Your task to perform on an android device: turn on priority inbox in the gmail app Image 0: 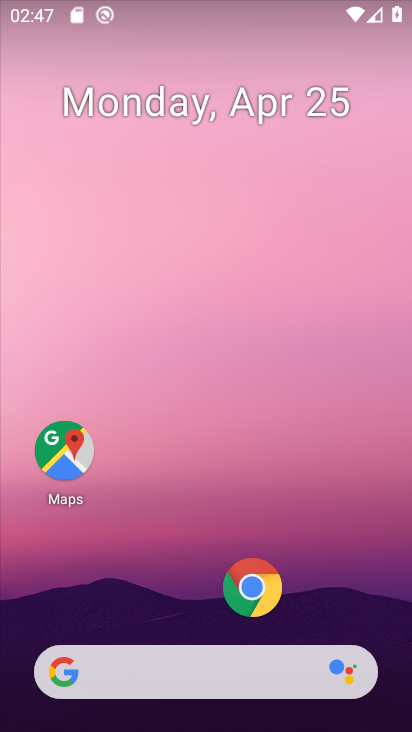
Step 0: drag from (203, 607) to (178, 42)
Your task to perform on an android device: turn on priority inbox in the gmail app Image 1: 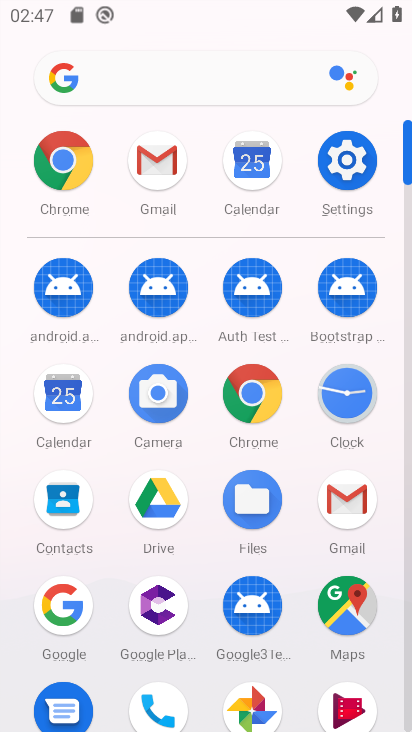
Step 1: click (347, 489)
Your task to perform on an android device: turn on priority inbox in the gmail app Image 2: 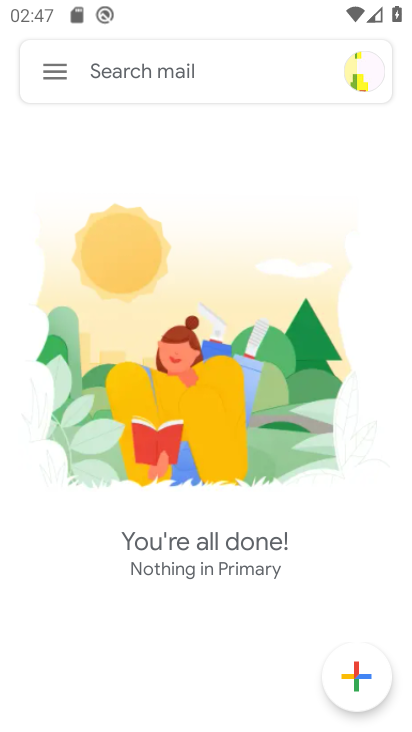
Step 2: click (48, 64)
Your task to perform on an android device: turn on priority inbox in the gmail app Image 3: 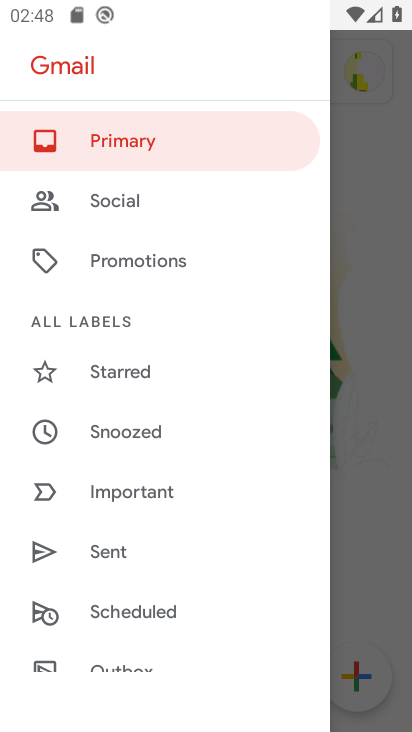
Step 3: drag from (138, 641) to (122, 51)
Your task to perform on an android device: turn on priority inbox in the gmail app Image 4: 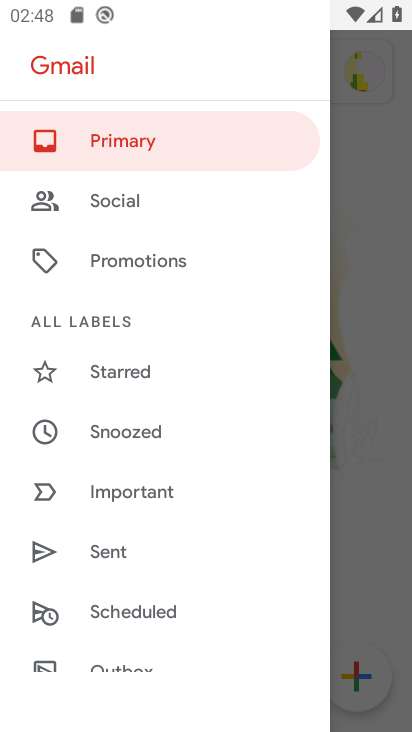
Step 4: drag from (126, 628) to (137, 91)
Your task to perform on an android device: turn on priority inbox in the gmail app Image 5: 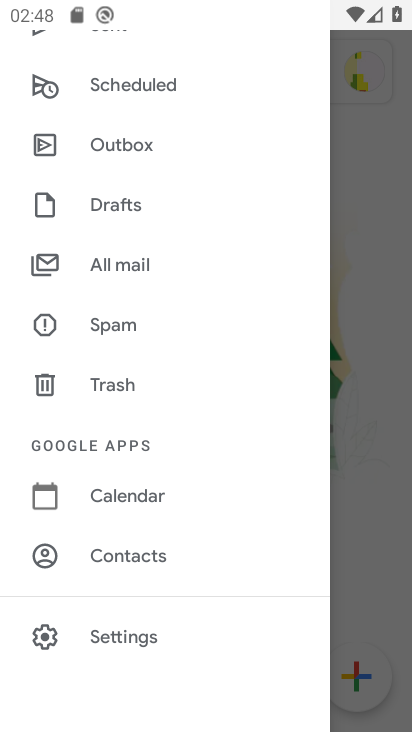
Step 5: click (169, 622)
Your task to perform on an android device: turn on priority inbox in the gmail app Image 6: 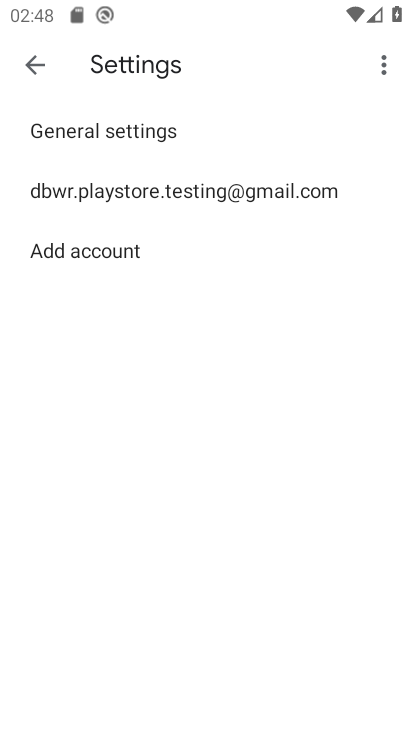
Step 6: click (276, 184)
Your task to perform on an android device: turn on priority inbox in the gmail app Image 7: 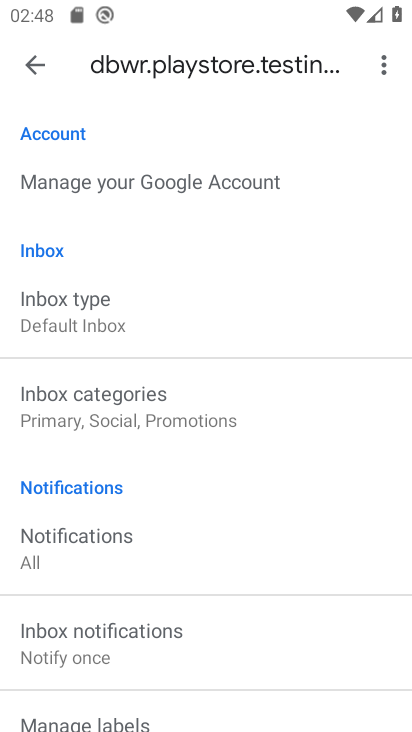
Step 7: click (131, 311)
Your task to perform on an android device: turn on priority inbox in the gmail app Image 8: 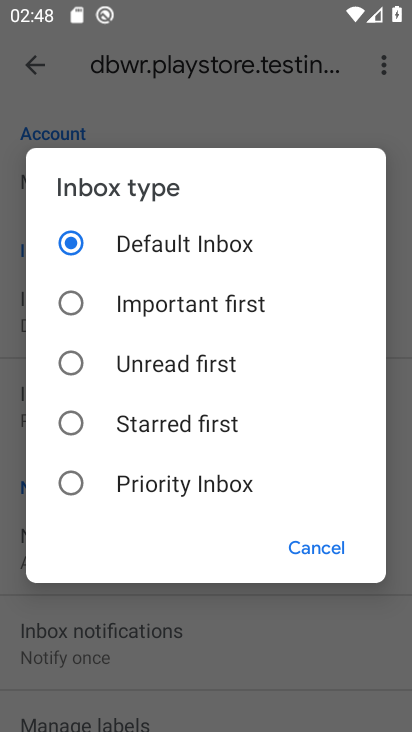
Step 8: click (69, 474)
Your task to perform on an android device: turn on priority inbox in the gmail app Image 9: 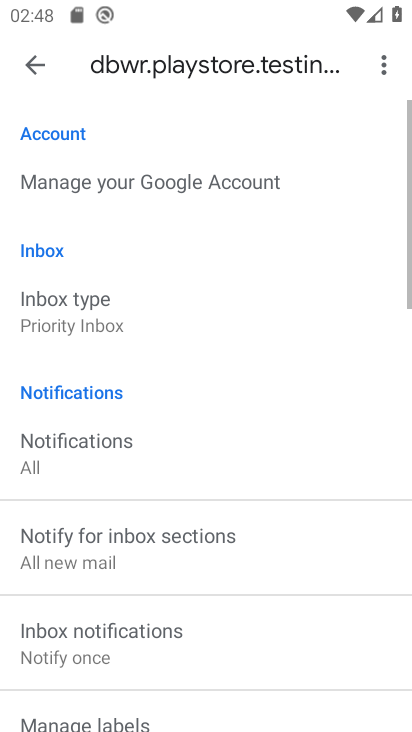
Step 9: task complete